Your task to perform on an android device: move an email to a new category in the gmail app Image 0: 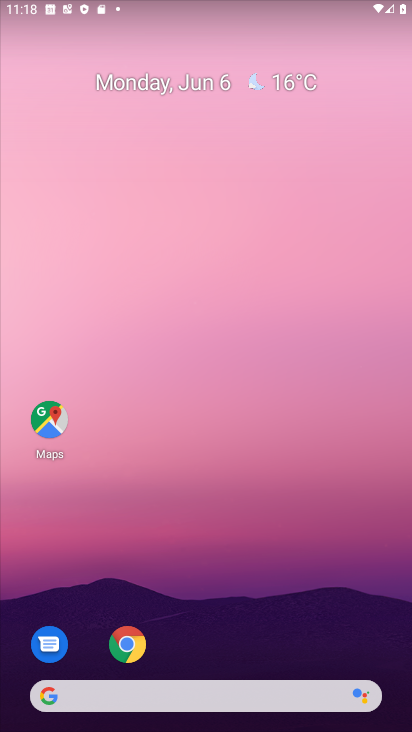
Step 0: drag from (254, 471) to (303, 63)
Your task to perform on an android device: move an email to a new category in the gmail app Image 1: 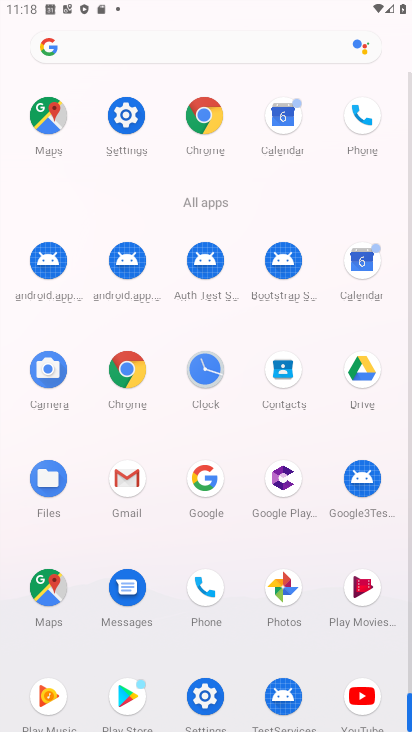
Step 1: click (135, 488)
Your task to perform on an android device: move an email to a new category in the gmail app Image 2: 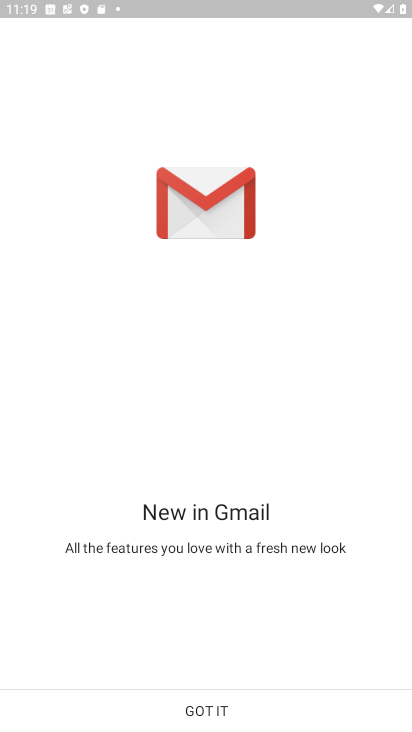
Step 2: click (232, 718)
Your task to perform on an android device: move an email to a new category in the gmail app Image 3: 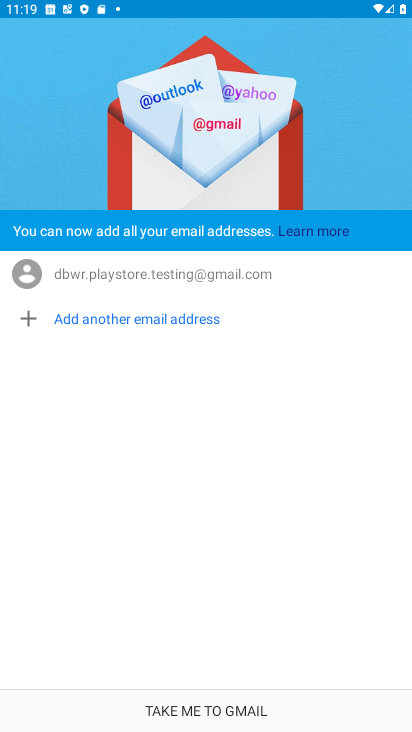
Step 3: click (233, 710)
Your task to perform on an android device: move an email to a new category in the gmail app Image 4: 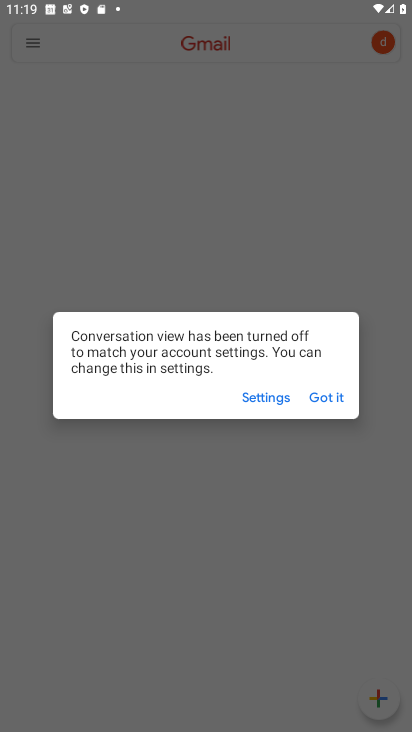
Step 4: click (330, 389)
Your task to perform on an android device: move an email to a new category in the gmail app Image 5: 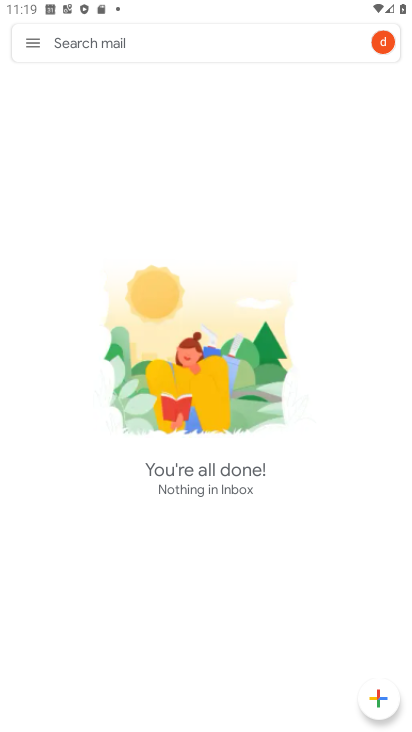
Step 5: click (27, 53)
Your task to perform on an android device: move an email to a new category in the gmail app Image 6: 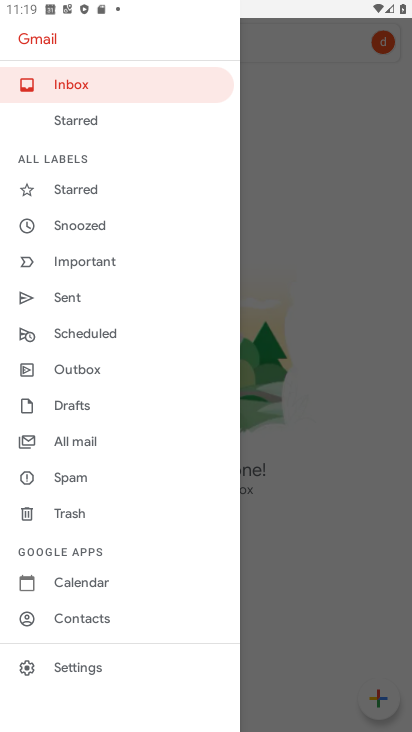
Step 6: drag from (97, 583) to (134, 315)
Your task to perform on an android device: move an email to a new category in the gmail app Image 7: 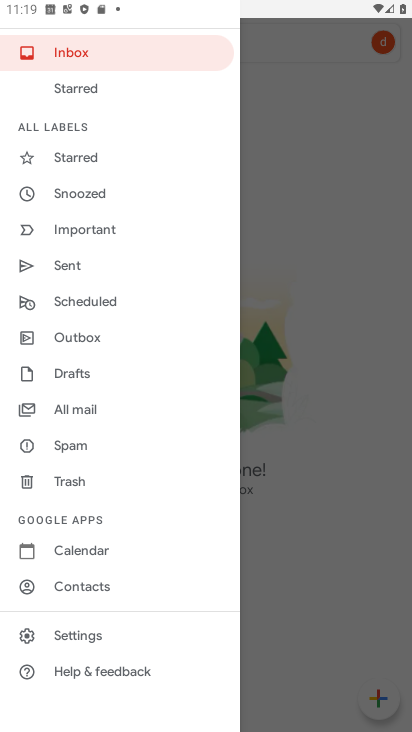
Step 7: click (76, 415)
Your task to perform on an android device: move an email to a new category in the gmail app Image 8: 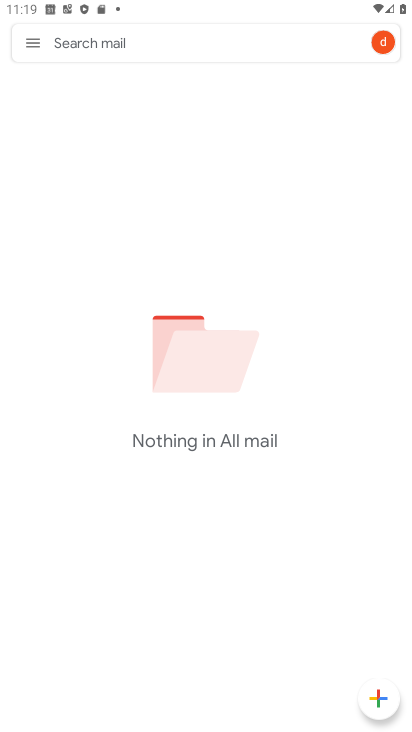
Step 8: click (253, 326)
Your task to perform on an android device: move an email to a new category in the gmail app Image 9: 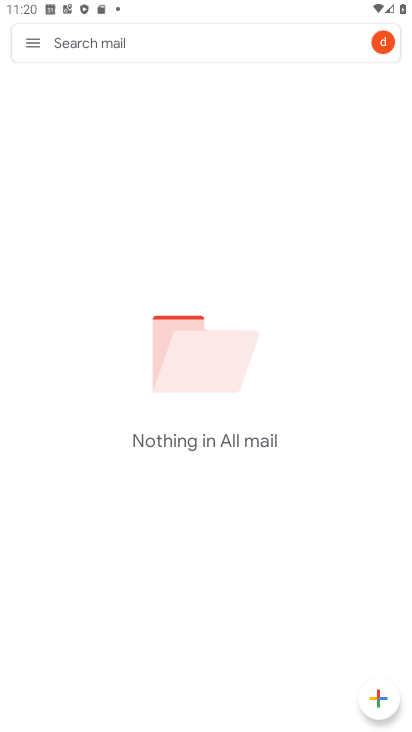
Step 9: task complete